Your task to perform on an android device: Open wifi settings Image 0: 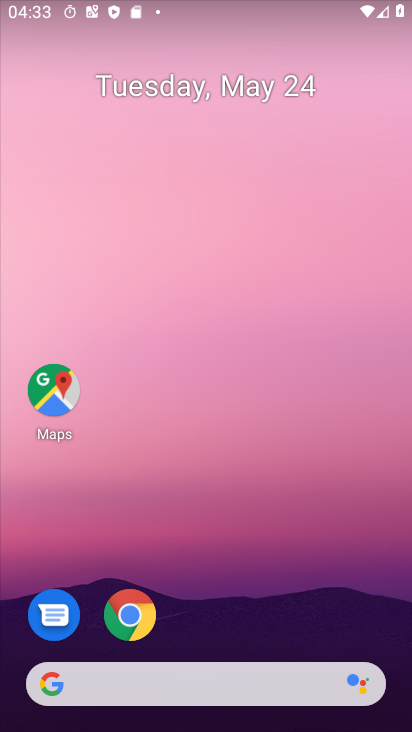
Step 0: drag from (108, 8) to (167, 453)
Your task to perform on an android device: Open wifi settings Image 1: 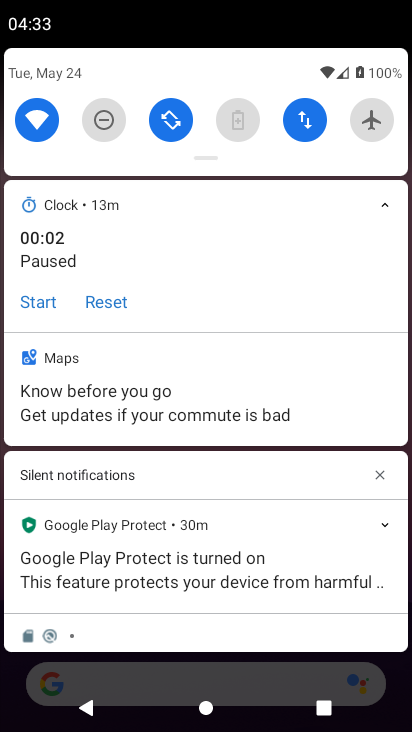
Step 1: click (39, 121)
Your task to perform on an android device: Open wifi settings Image 2: 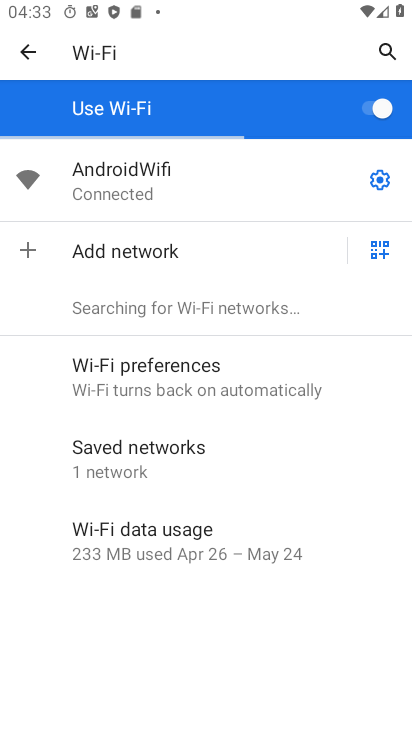
Step 2: task complete